Your task to perform on an android device: Open Google Chrome and open the bookmarks view Image 0: 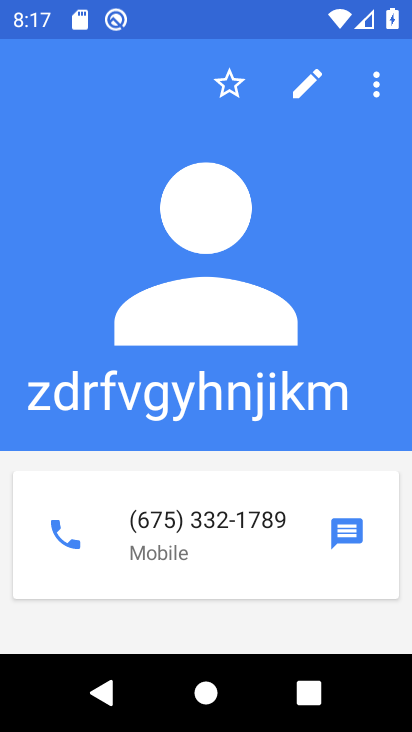
Step 0: press home button
Your task to perform on an android device: Open Google Chrome and open the bookmarks view Image 1: 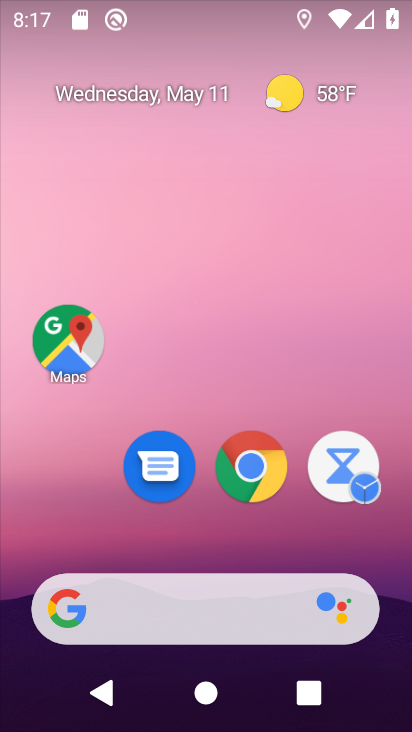
Step 1: click (245, 458)
Your task to perform on an android device: Open Google Chrome and open the bookmarks view Image 2: 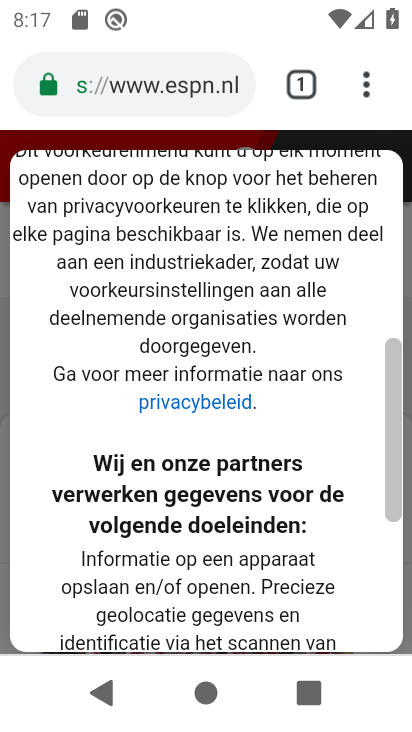
Step 2: click (352, 78)
Your task to perform on an android device: Open Google Chrome and open the bookmarks view Image 3: 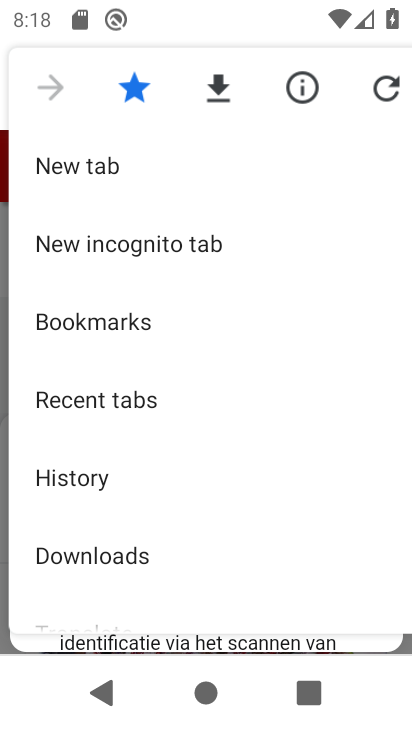
Step 3: click (117, 331)
Your task to perform on an android device: Open Google Chrome and open the bookmarks view Image 4: 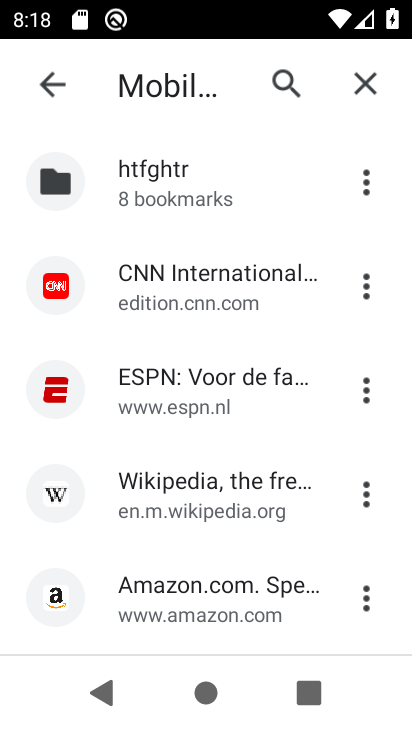
Step 4: task complete